Your task to perform on an android device: Go to settings Image 0: 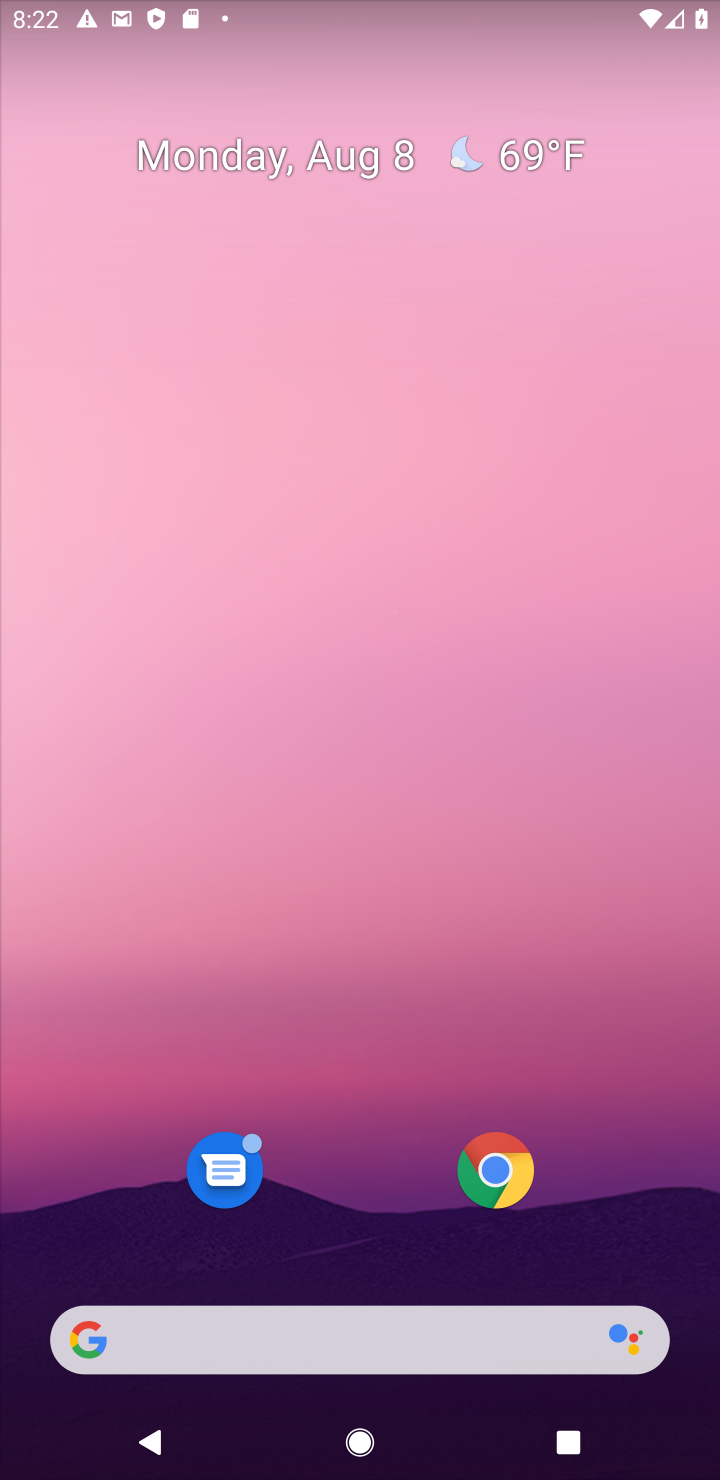
Step 0: drag from (683, 1255) to (574, 511)
Your task to perform on an android device: Go to settings Image 1: 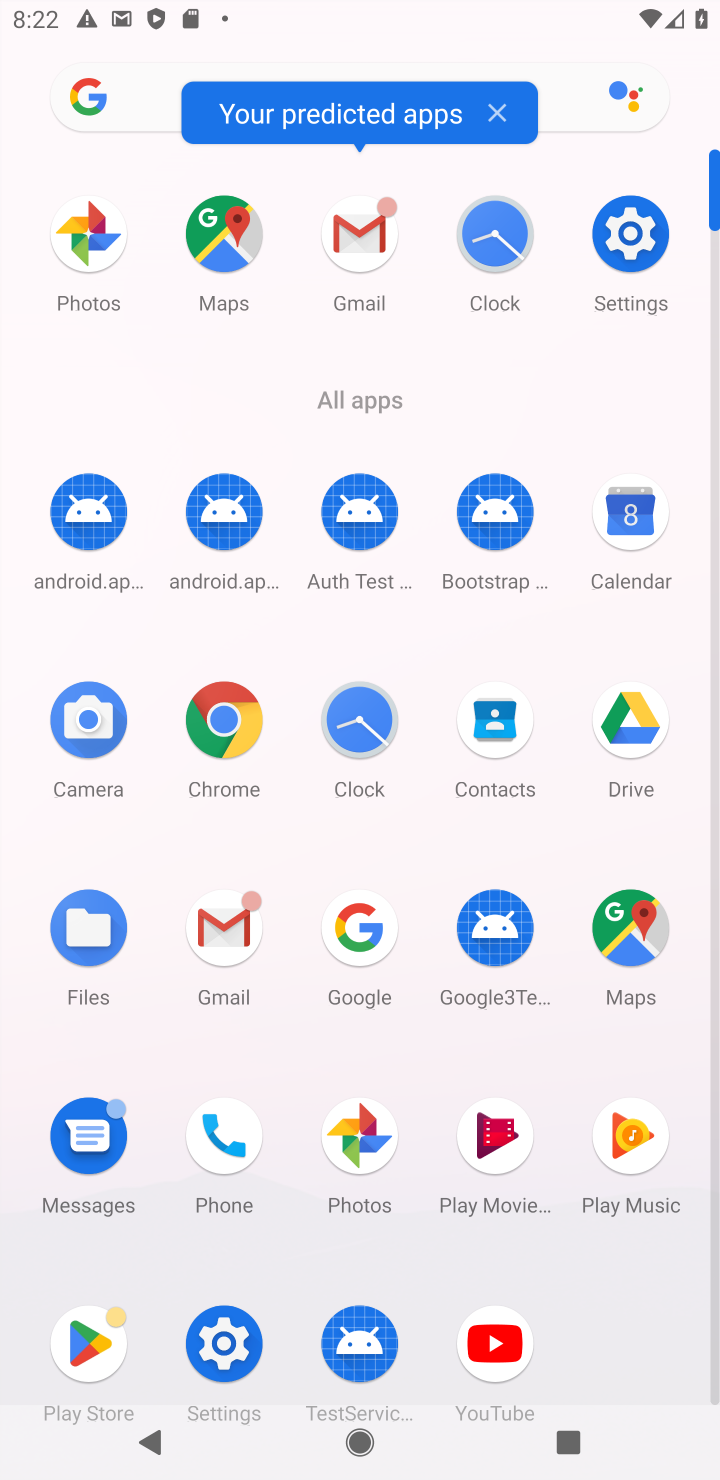
Step 1: click (635, 249)
Your task to perform on an android device: Go to settings Image 2: 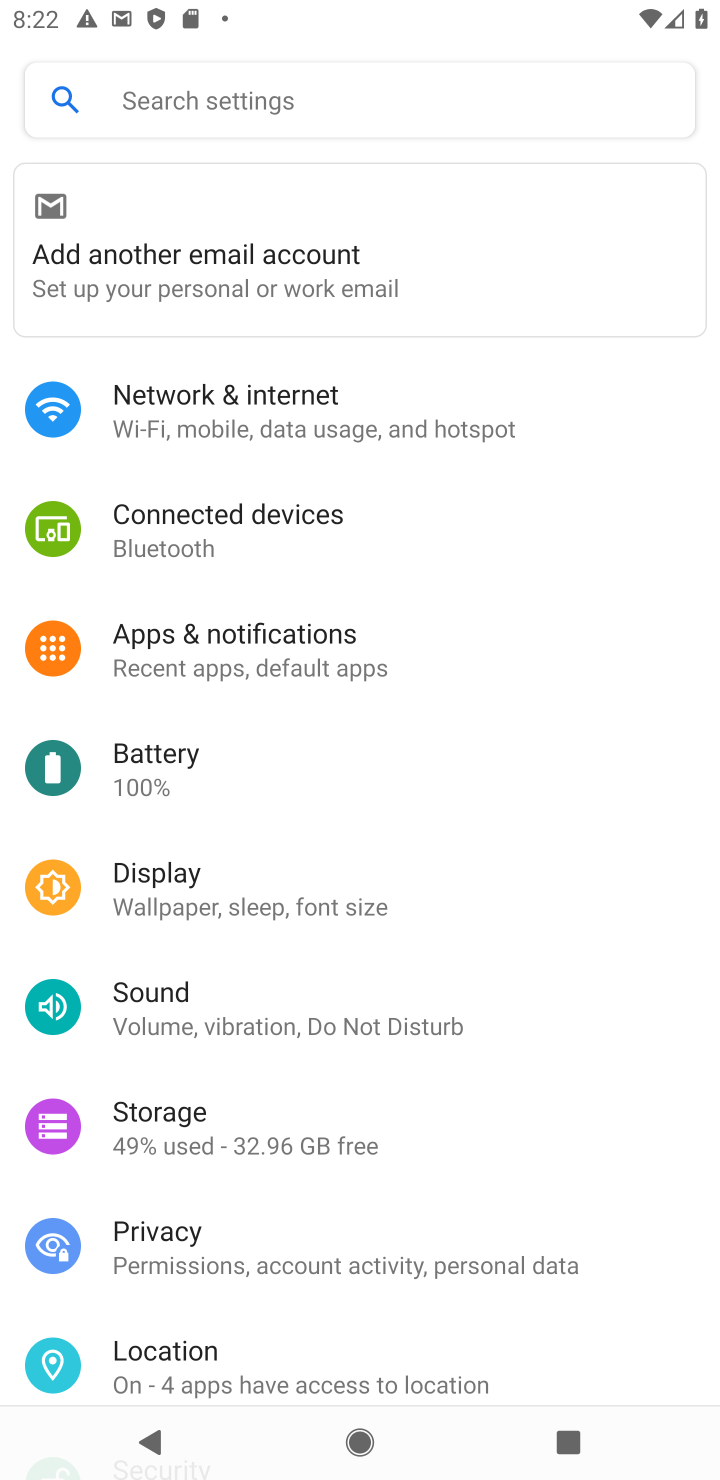
Step 2: task complete